Your task to perform on an android device: Go to calendar. Show me events next week Image 0: 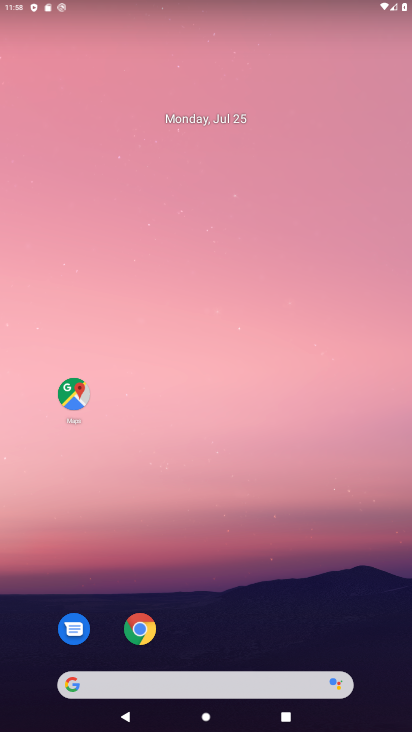
Step 0: drag from (320, 496) to (258, 2)
Your task to perform on an android device: Go to calendar. Show me events next week Image 1: 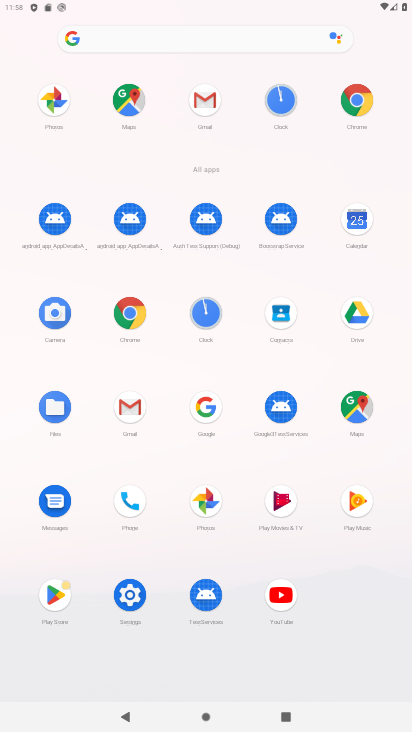
Step 1: drag from (227, 66) to (354, 409)
Your task to perform on an android device: Go to calendar. Show me events next week Image 2: 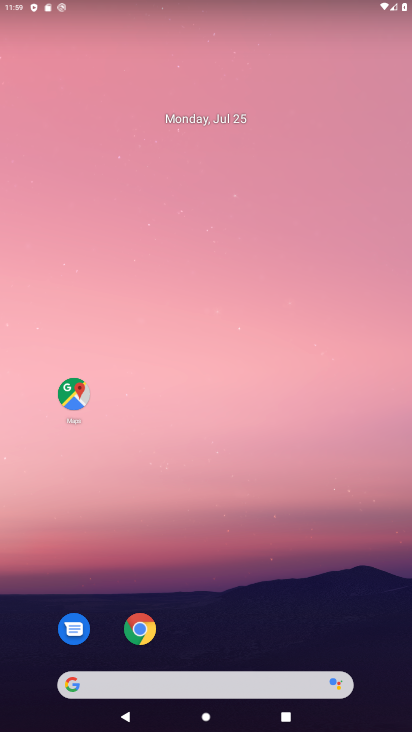
Step 2: drag from (293, 682) to (222, 40)
Your task to perform on an android device: Go to calendar. Show me events next week Image 3: 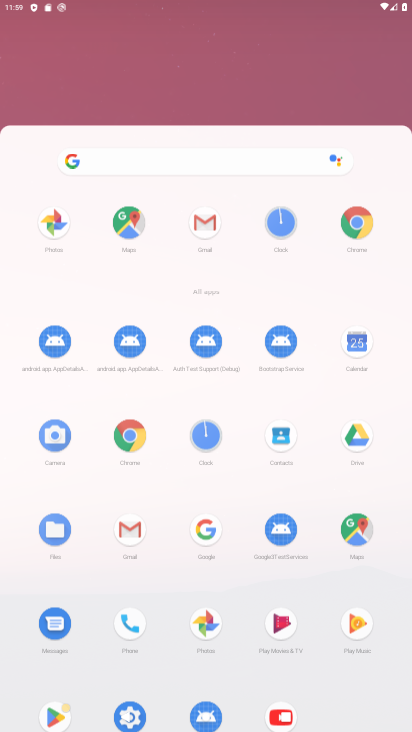
Step 3: drag from (258, 565) to (233, 6)
Your task to perform on an android device: Go to calendar. Show me events next week Image 4: 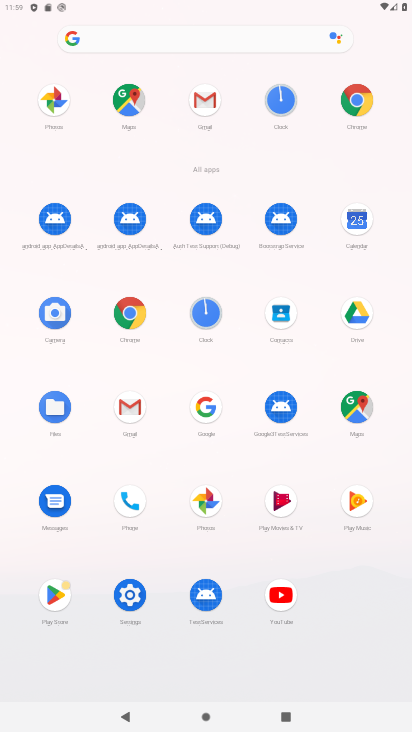
Step 4: drag from (273, 408) to (246, 12)
Your task to perform on an android device: Go to calendar. Show me events next week Image 5: 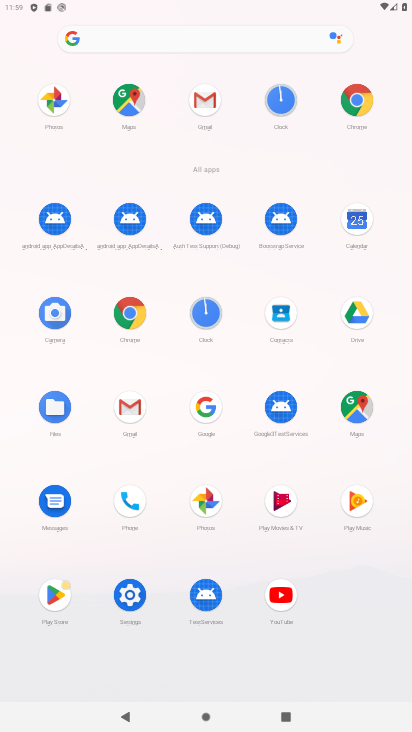
Step 5: click (351, 225)
Your task to perform on an android device: Go to calendar. Show me events next week Image 6: 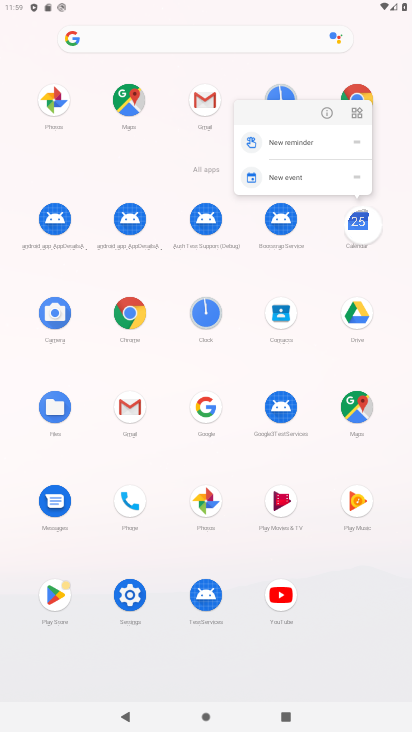
Step 6: click (354, 221)
Your task to perform on an android device: Go to calendar. Show me events next week Image 7: 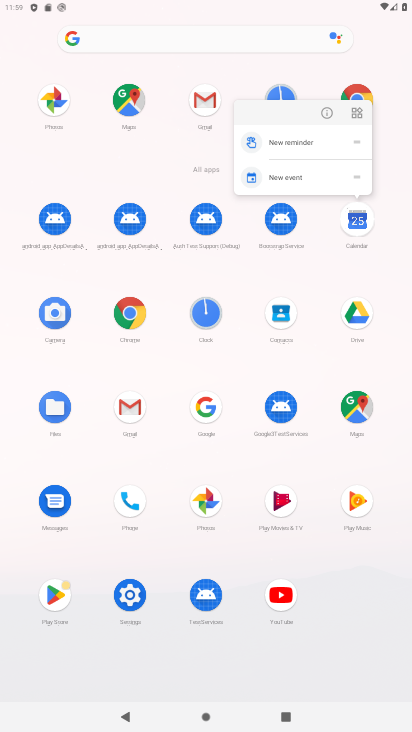
Step 7: click (348, 219)
Your task to perform on an android device: Go to calendar. Show me events next week Image 8: 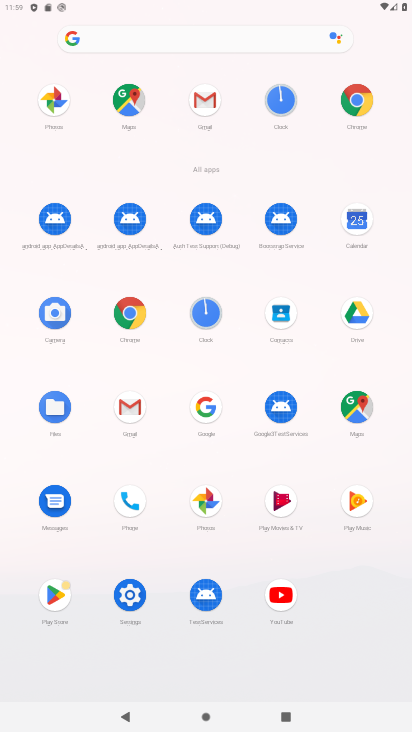
Step 8: click (346, 215)
Your task to perform on an android device: Go to calendar. Show me events next week Image 9: 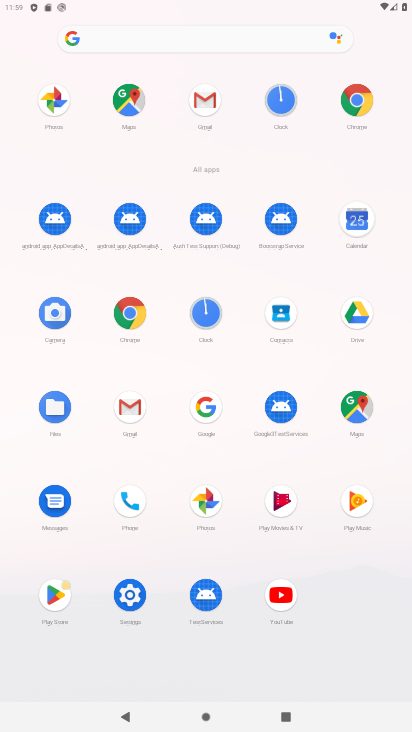
Step 9: click (340, 217)
Your task to perform on an android device: Go to calendar. Show me events next week Image 10: 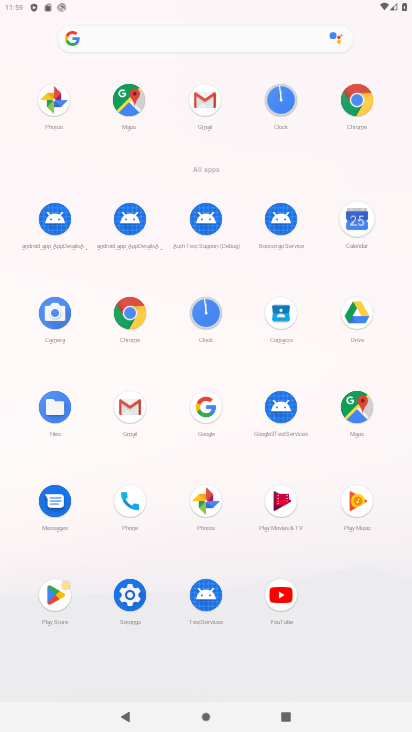
Step 10: click (342, 220)
Your task to perform on an android device: Go to calendar. Show me events next week Image 11: 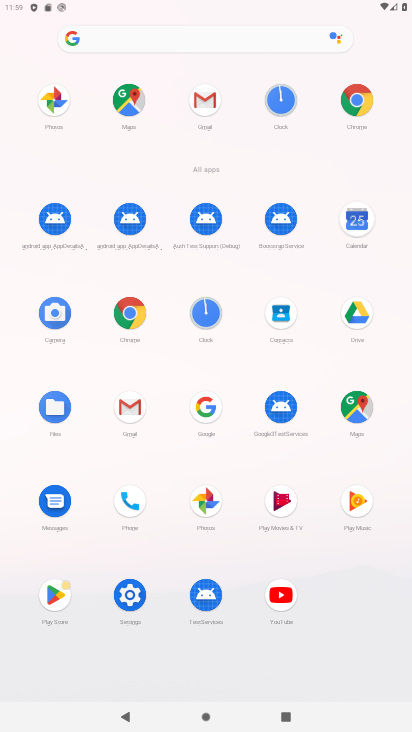
Step 11: click (361, 231)
Your task to perform on an android device: Go to calendar. Show me events next week Image 12: 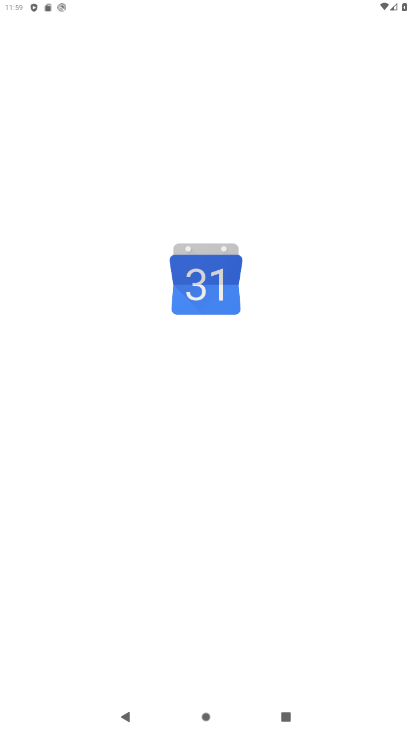
Step 12: click (355, 228)
Your task to perform on an android device: Go to calendar. Show me events next week Image 13: 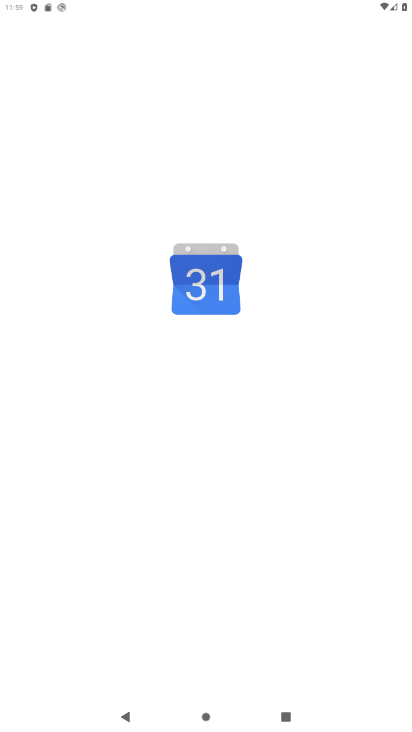
Step 13: click (354, 227)
Your task to perform on an android device: Go to calendar. Show me events next week Image 14: 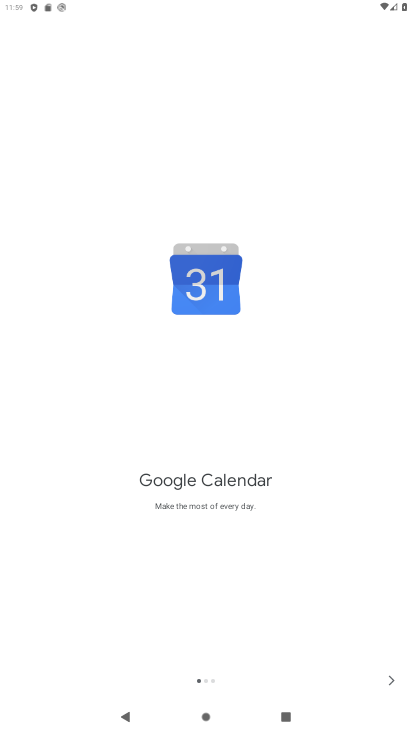
Step 14: click (388, 676)
Your task to perform on an android device: Go to calendar. Show me events next week Image 15: 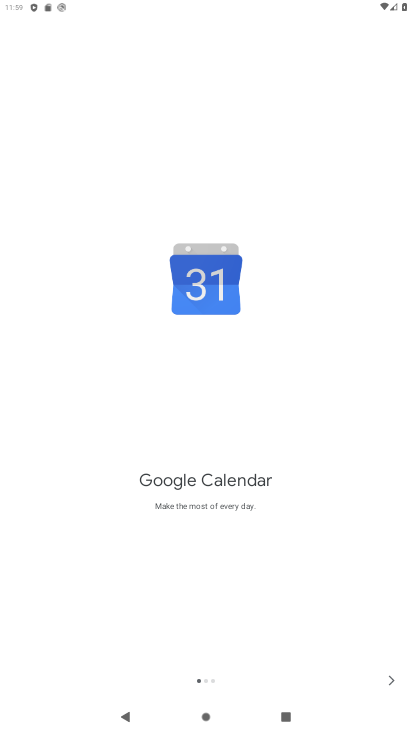
Step 15: click (388, 676)
Your task to perform on an android device: Go to calendar. Show me events next week Image 16: 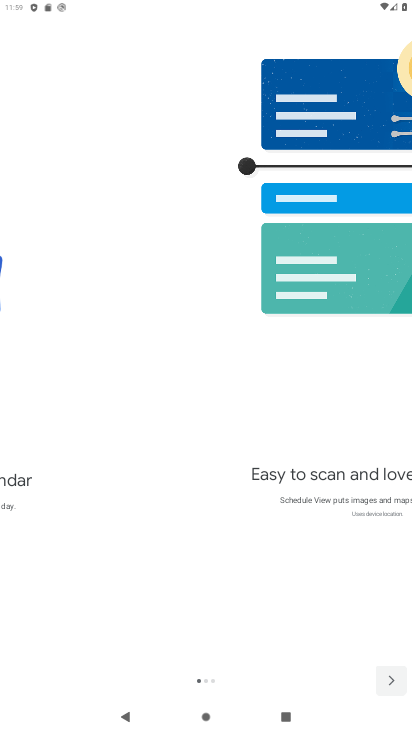
Step 16: click (390, 677)
Your task to perform on an android device: Go to calendar. Show me events next week Image 17: 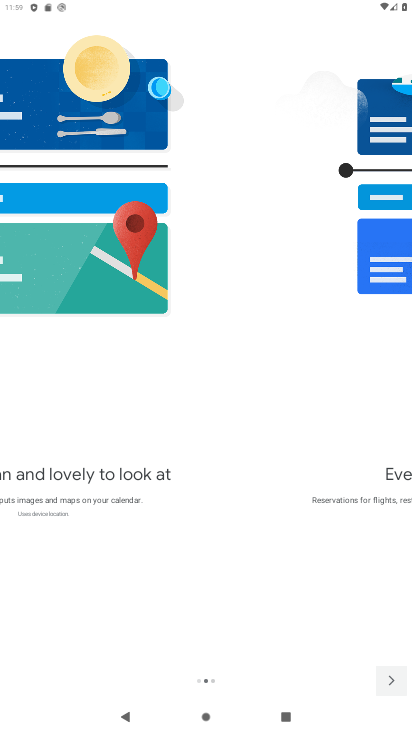
Step 17: click (394, 683)
Your task to perform on an android device: Go to calendar. Show me events next week Image 18: 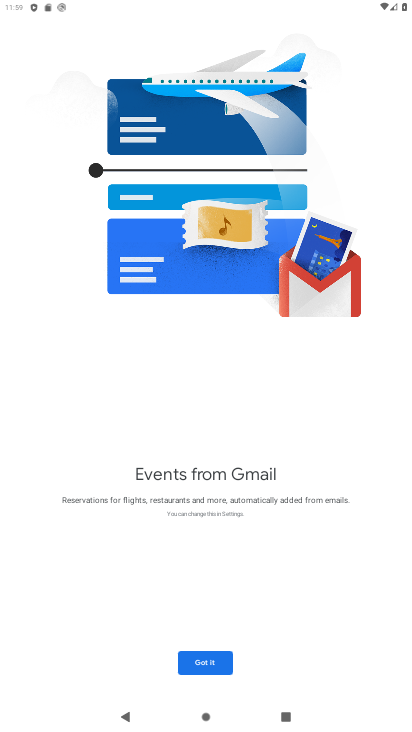
Step 18: click (204, 665)
Your task to perform on an android device: Go to calendar. Show me events next week Image 19: 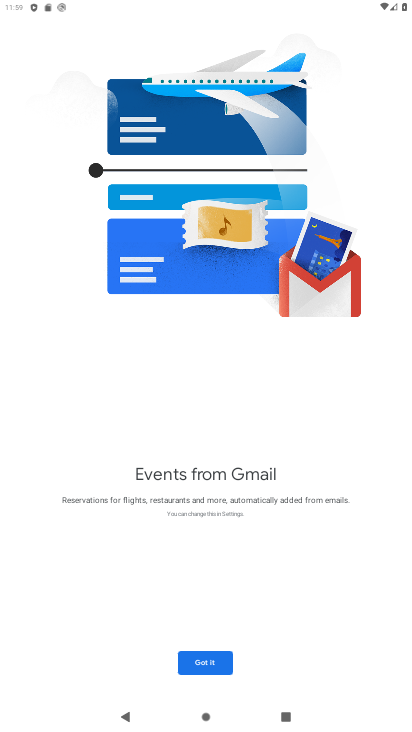
Step 19: click (203, 658)
Your task to perform on an android device: Go to calendar. Show me events next week Image 20: 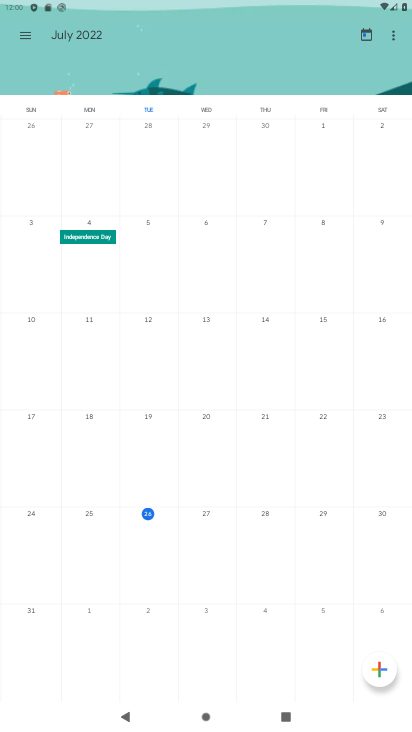
Step 20: click (263, 606)
Your task to perform on an android device: Go to calendar. Show me events next week Image 21: 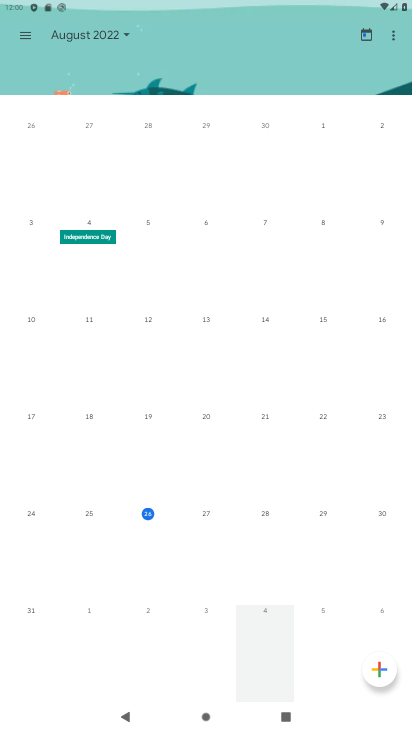
Step 21: click (264, 606)
Your task to perform on an android device: Go to calendar. Show me events next week Image 22: 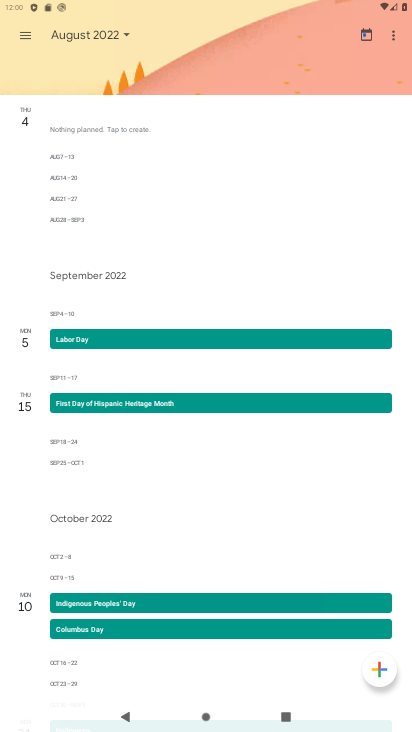
Step 22: click (266, 609)
Your task to perform on an android device: Go to calendar. Show me events next week Image 23: 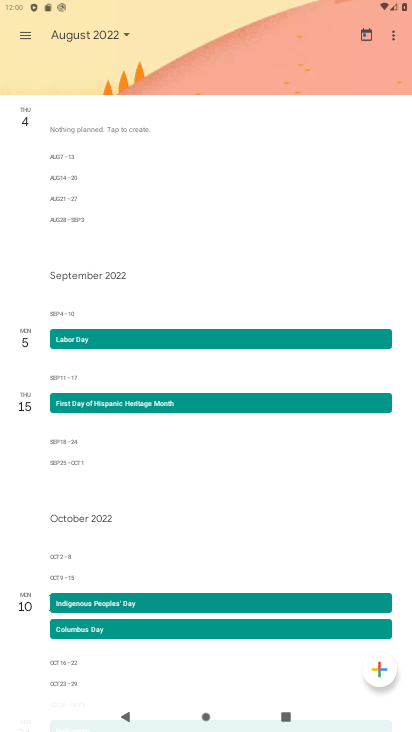
Step 23: click (265, 607)
Your task to perform on an android device: Go to calendar. Show me events next week Image 24: 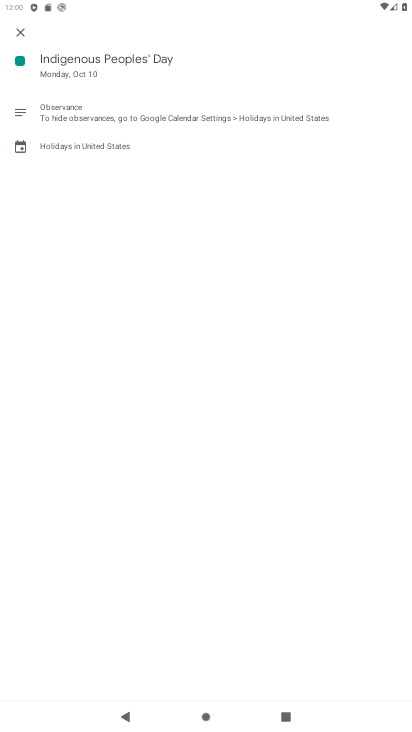
Step 24: task complete